Your task to perform on an android device: Go to Google maps Image 0: 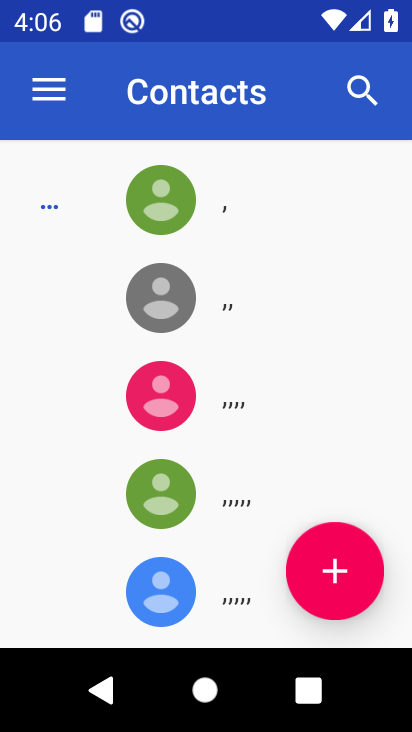
Step 0: press home button
Your task to perform on an android device: Go to Google maps Image 1: 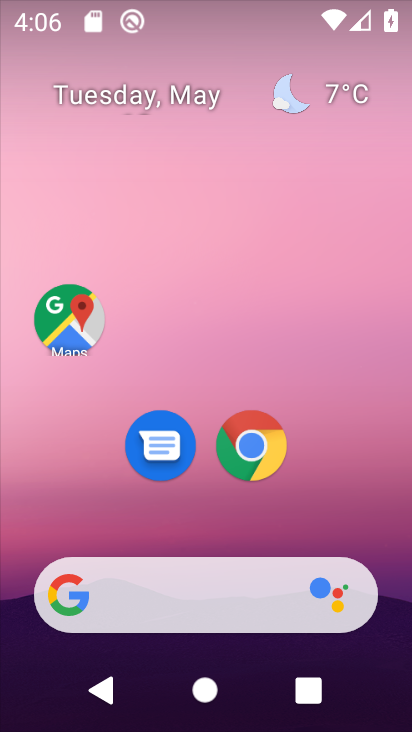
Step 1: click (77, 340)
Your task to perform on an android device: Go to Google maps Image 2: 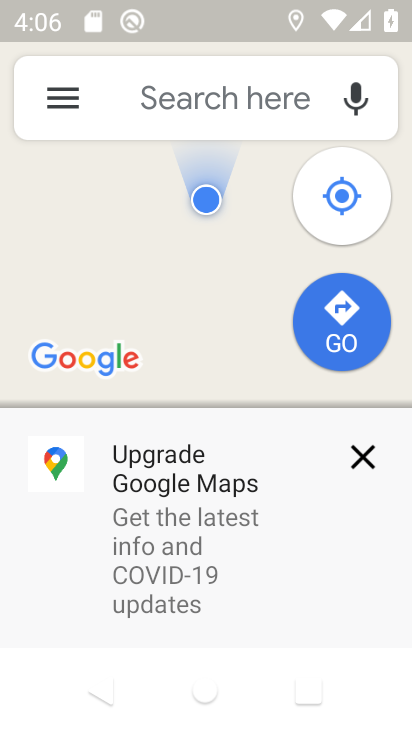
Step 2: click (359, 453)
Your task to perform on an android device: Go to Google maps Image 3: 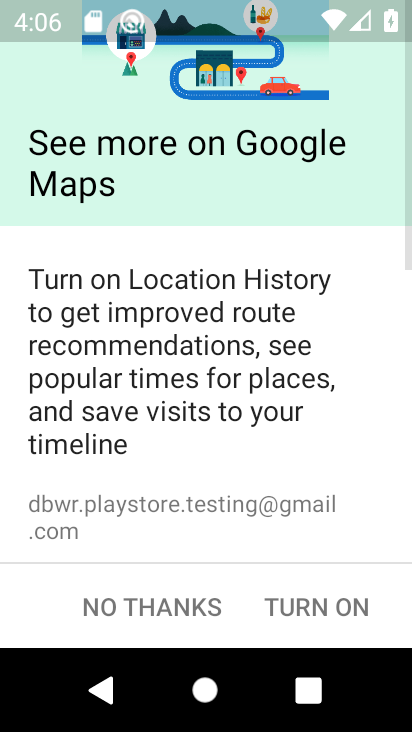
Step 3: task complete